Your task to perform on an android device: Open Yahoo.com Image 0: 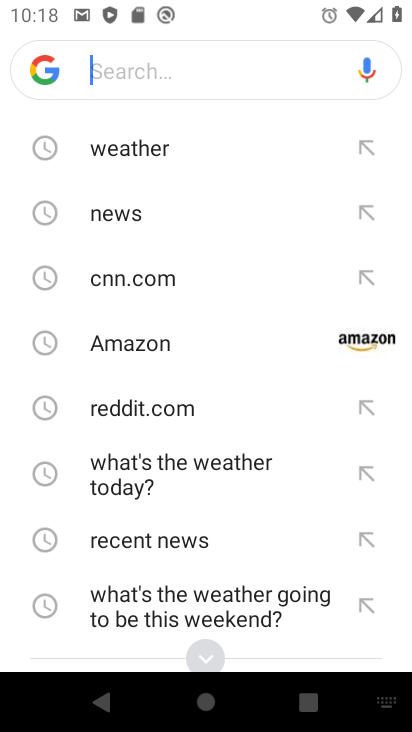
Step 0: press home button
Your task to perform on an android device: Open Yahoo.com Image 1: 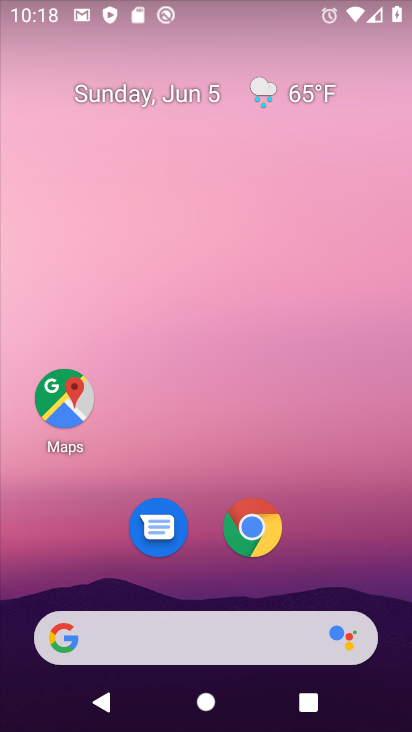
Step 1: click (250, 527)
Your task to perform on an android device: Open Yahoo.com Image 2: 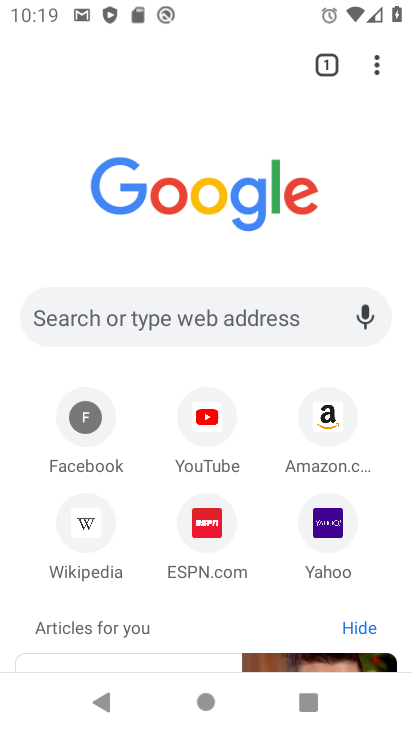
Step 2: click (313, 529)
Your task to perform on an android device: Open Yahoo.com Image 3: 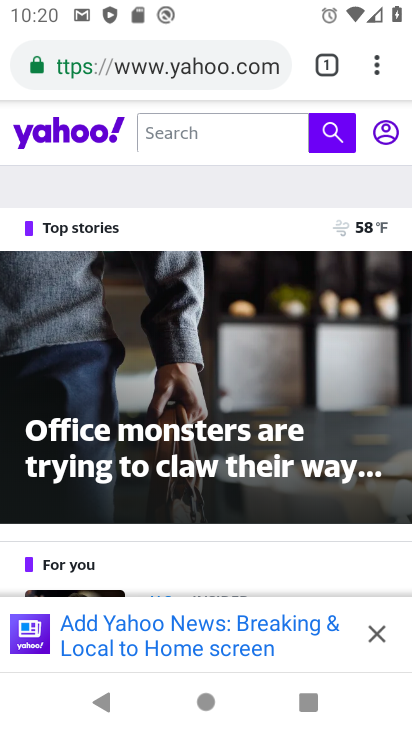
Step 3: task complete